Your task to perform on an android device: Go to Amazon Image 0: 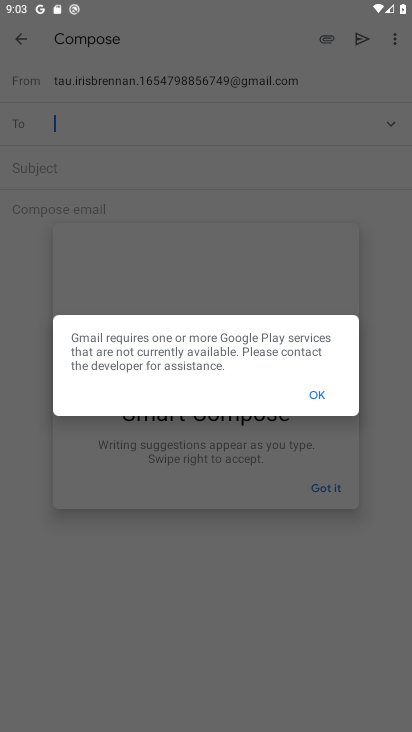
Step 0: press home button
Your task to perform on an android device: Go to Amazon Image 1: 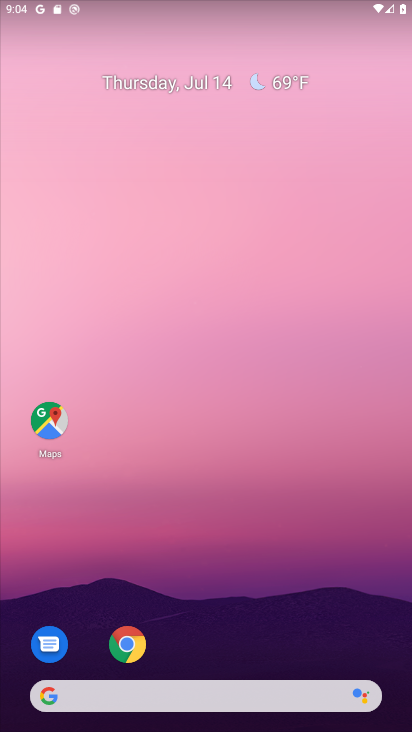
Step 1: click (127, 645)
Your task to perform on an android device: Go to Amazon Image 2: 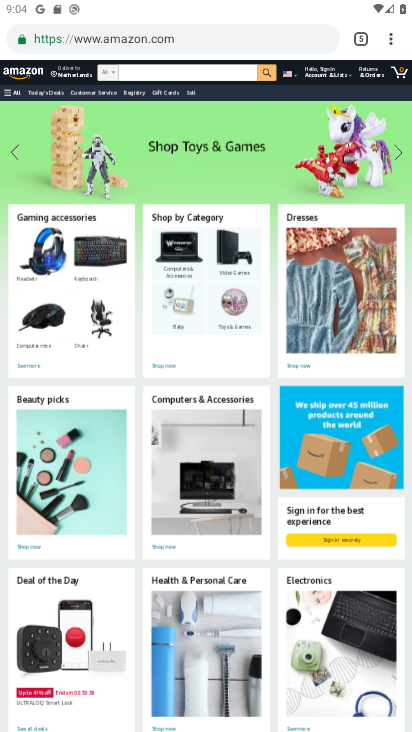
Step 2: task complete